Your task to perform on an android device: Go to privacy settings Image 0: 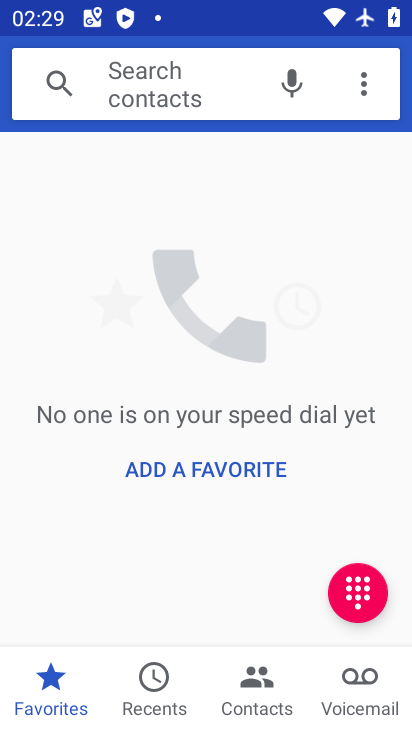
Step 0: press home button
Your task to perform on an android device: Go to privacy settings Image 1: 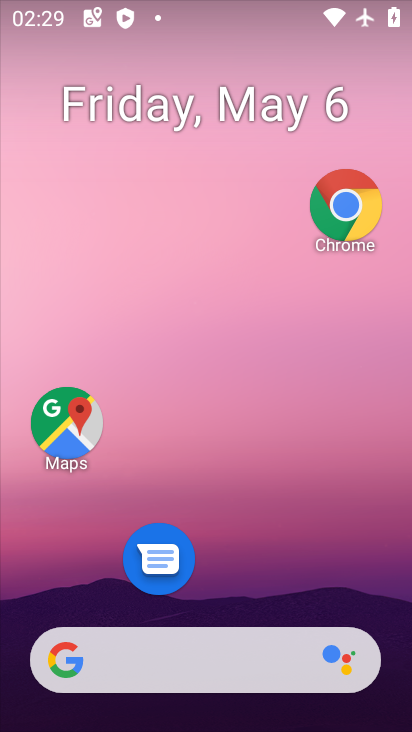
Step 1: drag from (174, 633) to (288, 102)
Your task to perform on an android device: Go to privacy settings Image 2: 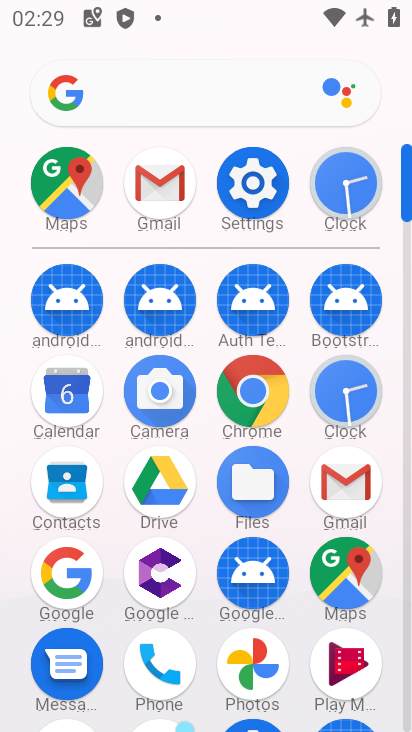
Step 2: click (251, 187)
Your task to perform on an android device: Go to privacy settings Image 3: 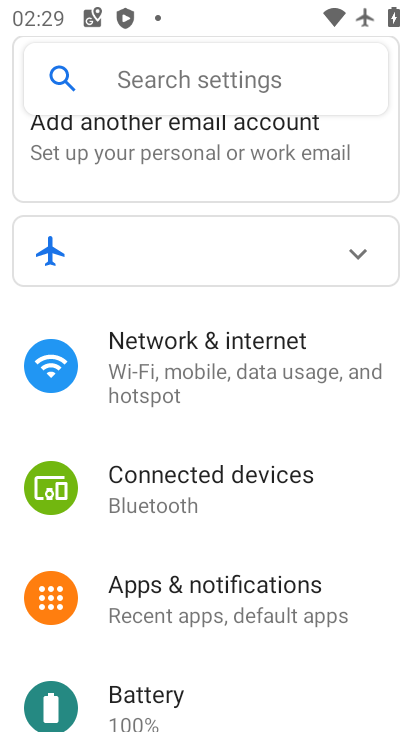
Step 3: drag from (222, 659) to (375, 131)
Your task to perform on an android device: Go to privacy settings Image 4: 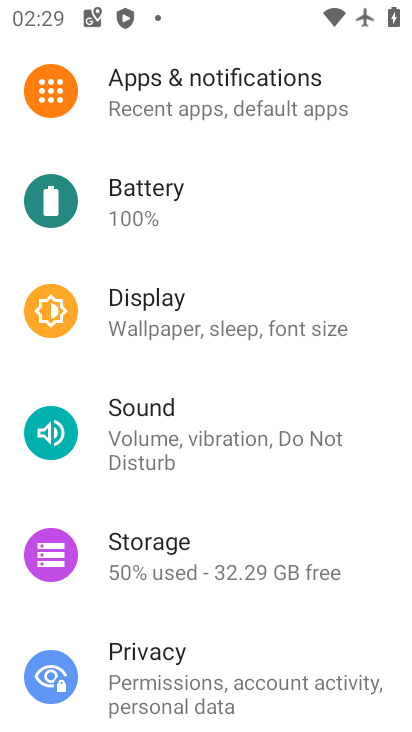
Step 4: click (181, 667)
Your task to perform on an android device: Go to privacy settings Image 5: 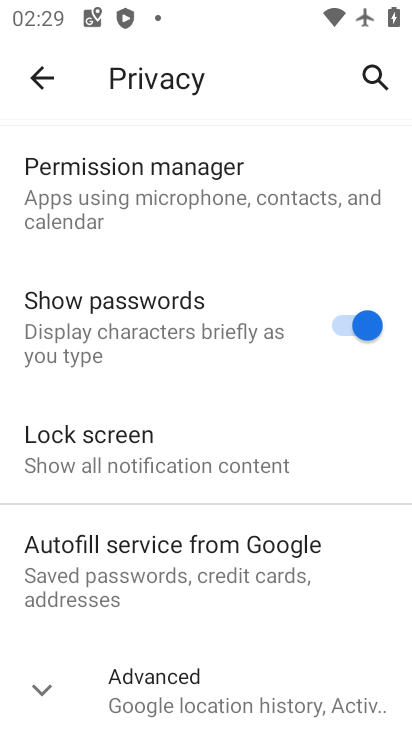
Step 5: task complete